Your task to perform on an android device: turn on translation in the chrome app Image 0: 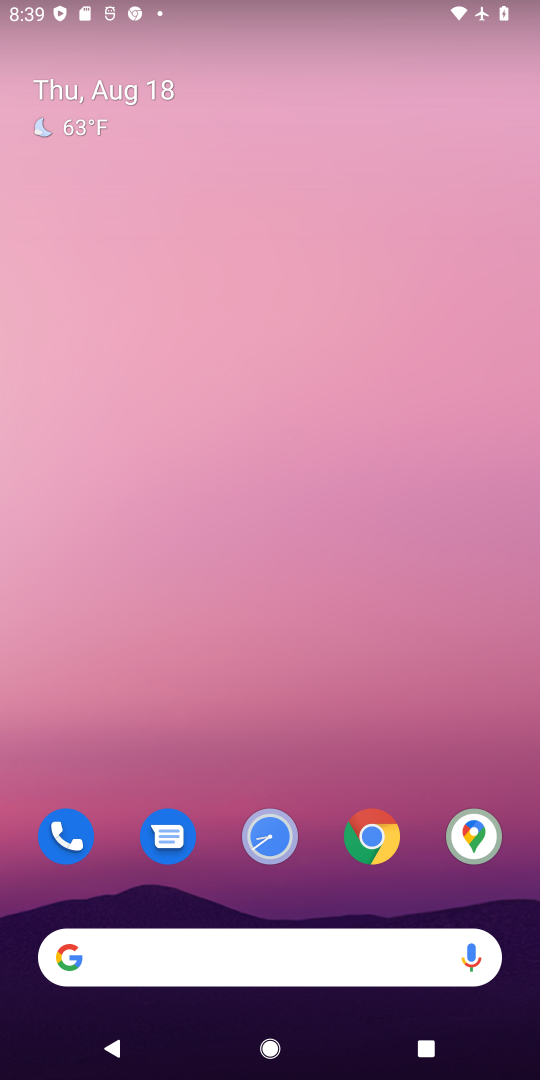
Step 0: drag from (392, 733) to (464, 32)
Your task to perform on an android device: turn on translation in the chrome app Image 1: 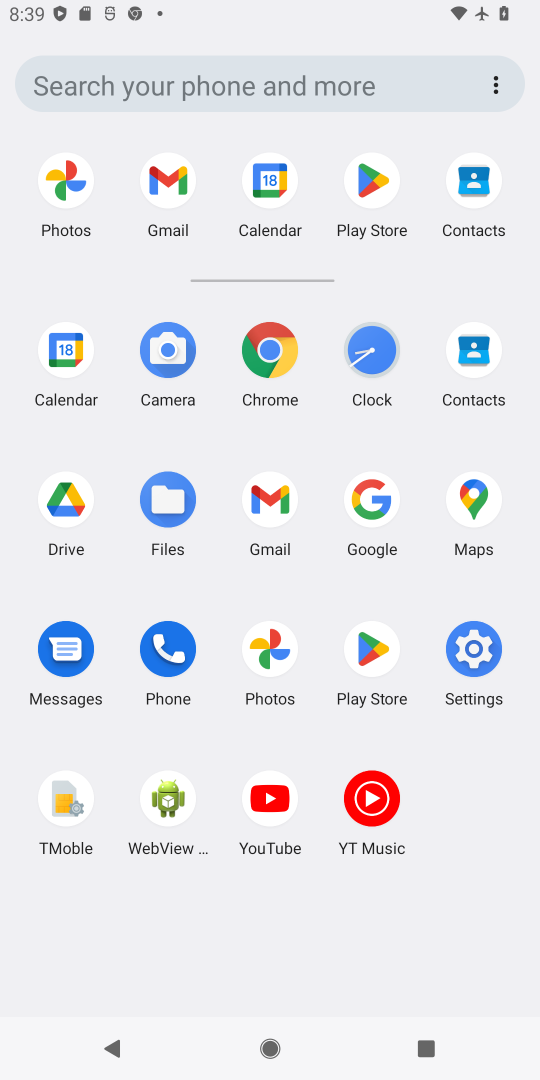
Step 1: click (277, 352)
Your task to perform on an android device: turn on translation in the chrome app Image 2: 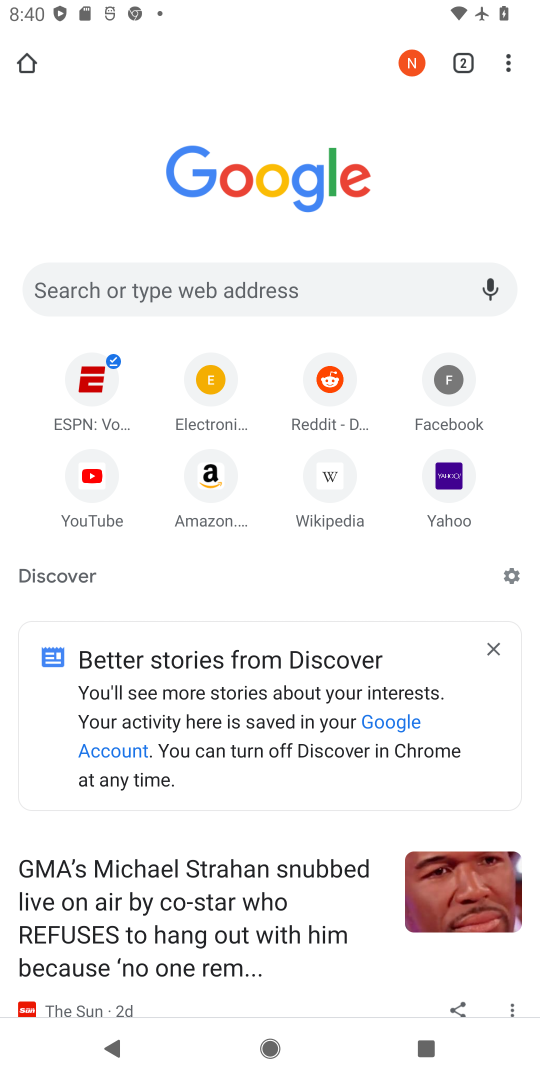
Step 2: drag from (507, 53) to (366, 624)
Your task to perform on an android device: turn on translation in the chrome app Image 3: 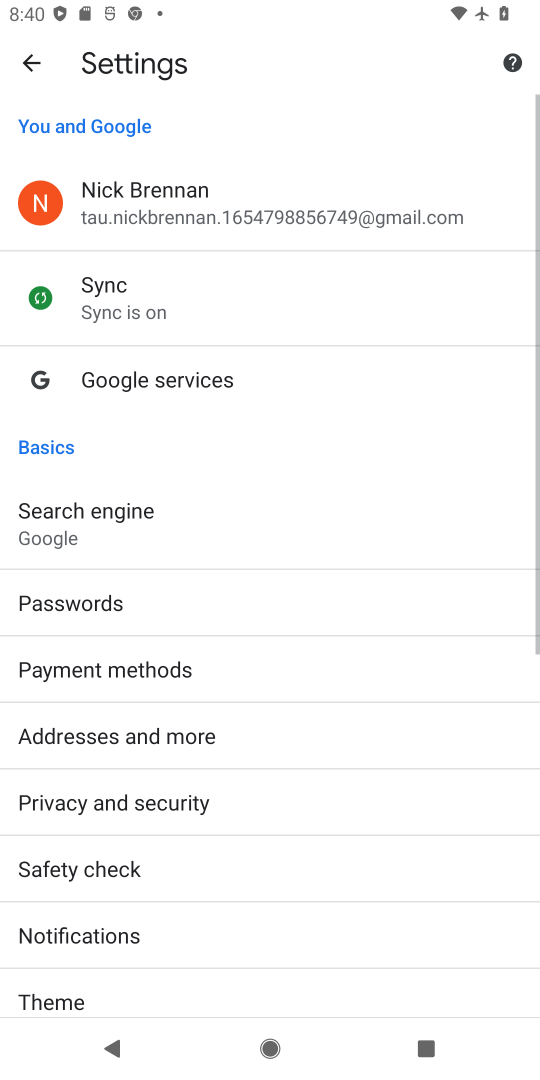
Step 3: drag from (209, 841) to (293, 162)
Your task to perform on an android device: turn on translation in the chrome app Image 4: 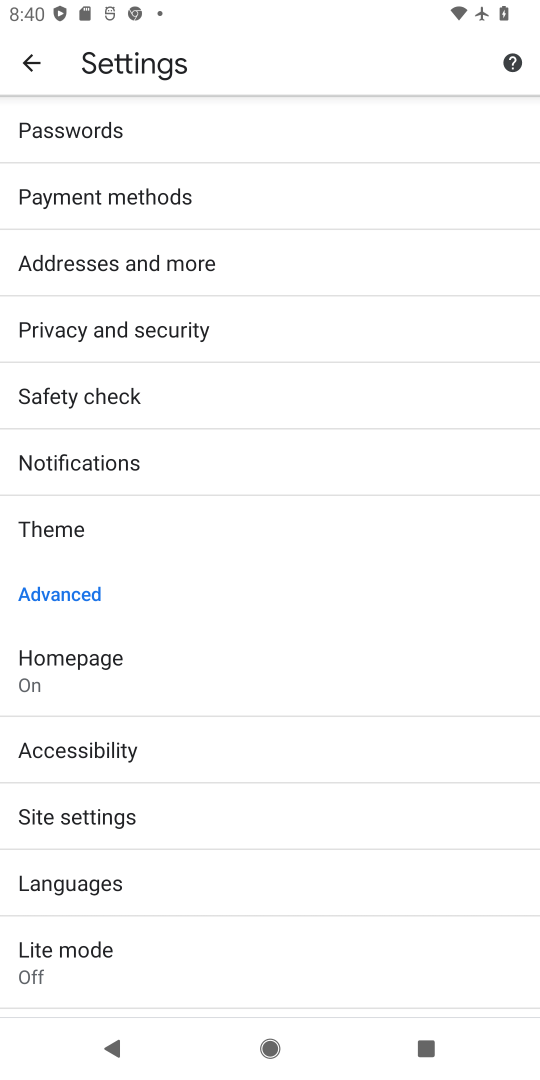
Step 4: click (90, 892)
Your task to perform on an android device: turn on translation in the chrome app Image 5: 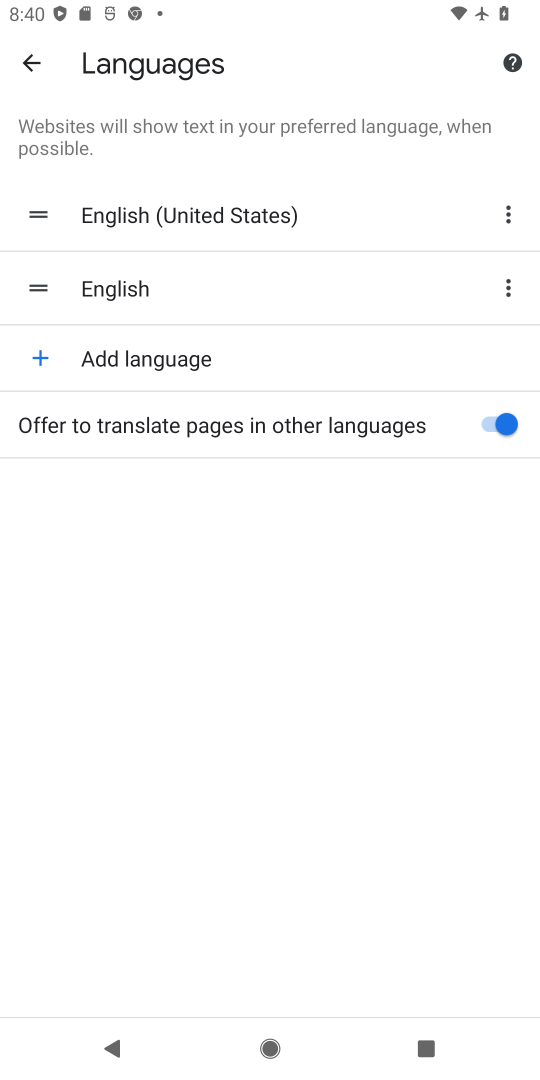
Step 5: task complete